Your task to perform on an android device: empty trash in the gmail app Image 0: 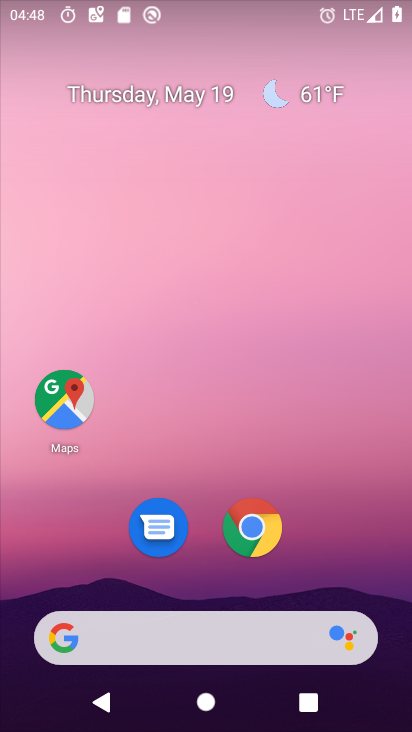
Step 0: drag from (207, 518) to (273, 43)
Your task to perform on an android device: empty trash in the gmail app Image 1: 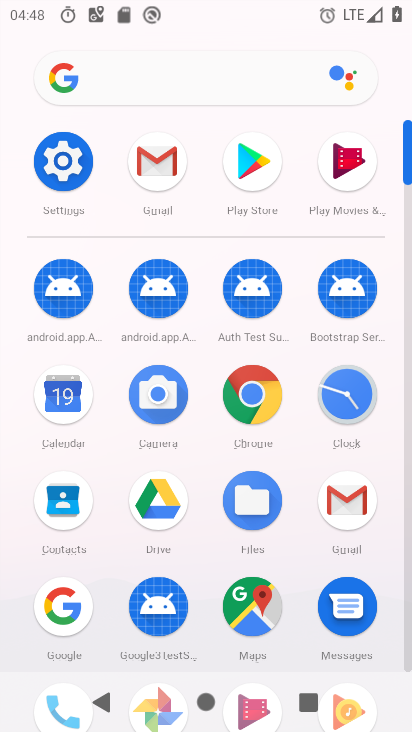
Step 1: click (157, 160)
Your task to perform on an android device: empty trash in the gmail app Image 2: 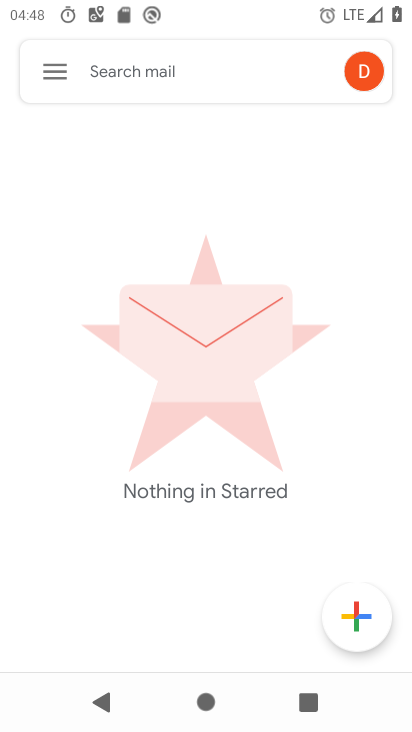
Step 2: click (46, 73)
Your task to perform on an android device: empty trash in the gmail app Image 3: 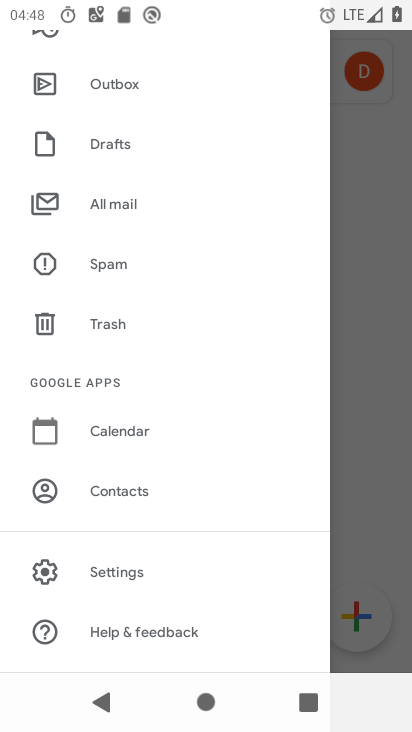
Step 3: click (129, 316)
Your task to perform on an android device: empty trash in the gmail app Image 4: 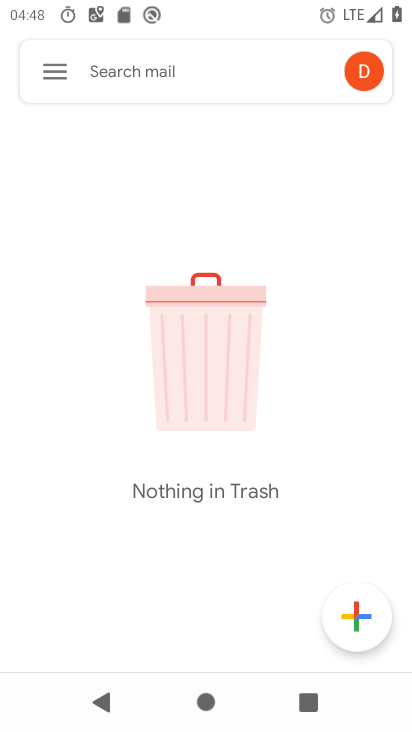
Step 4: task complete